Your task to perform on an android device: Open Google Maps and go to "Timeline" Image 0: 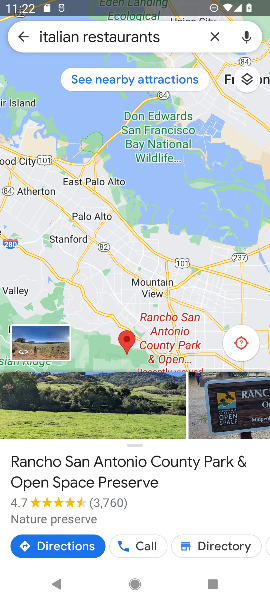
Step 0: press back button
Your task to perform on an android device: Open Google Maps and go to "Timeline" Image 1: 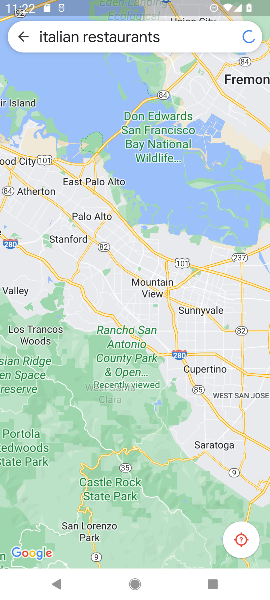
Step 1: press back button
Your task to perform on an android device: Open Google Maps and go to "Timeline" Image 2: 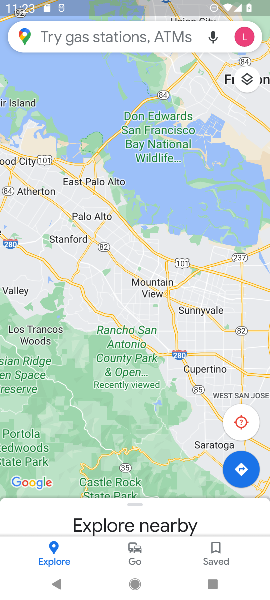
Step 2: click (36, 32)
Your task to perform on an android device: Open Google Maps and go to "Timeline" Image 3: 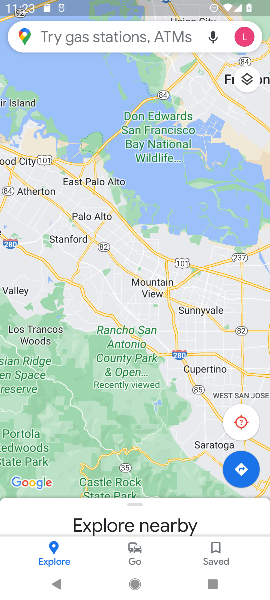
Step 3: click (33, 33)
Your task to perform on an android device: Open Google Maps and go to "Timeline" Image 4: 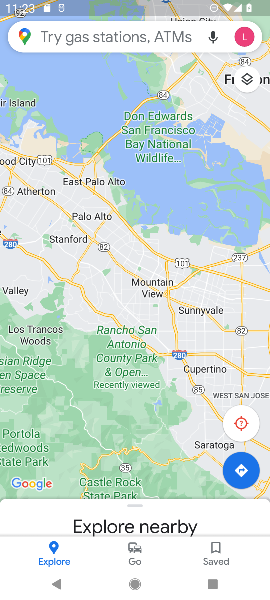
Step 4: click (33, 34)
Your task to perform on an android device: Open Google Maps and go to "Timeline" Image 5: 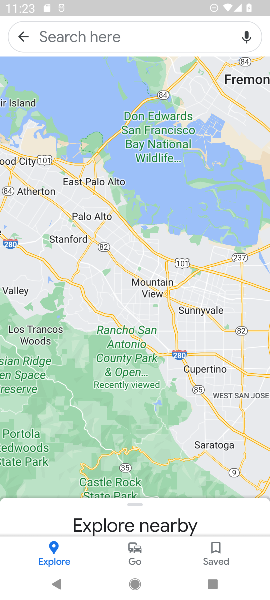
Step 5: click (20, 36)
Your task to perform on an android device: Open Google Maps and go to "Timeline" Image 6: 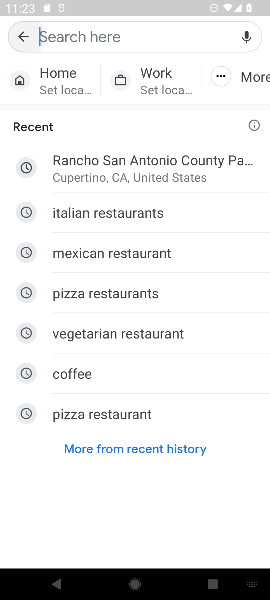
Step 6: drag from (20, 36) to (50, 256)
Your task to perform on an android device: Open Google Maps and go to "Timeline" Image 7: 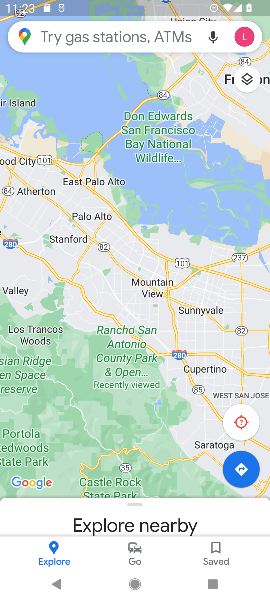
Step 7: click (20, 30)
Your task to perform on an android device: Open Google Maps and go to "Timeline" Image 8: 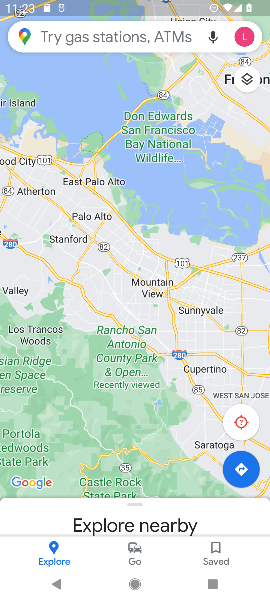
Step 8: click (20, 30)
Your task to perform on an android device: Open Google Maps and go to "Timeline" Image 9: 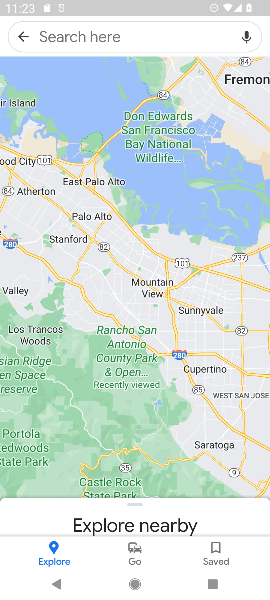
Step 9: click (20, 29)
Your task to perform on an android device: Open Google Maps and go to "Timeline" Image 10: 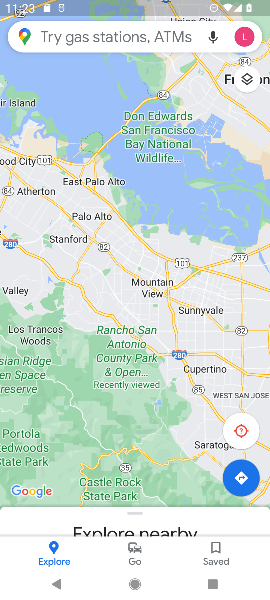
Step 10: click (20, 29)
Your task to perform on an android device: Open Google Maps and go to "Timeline" Image 11: 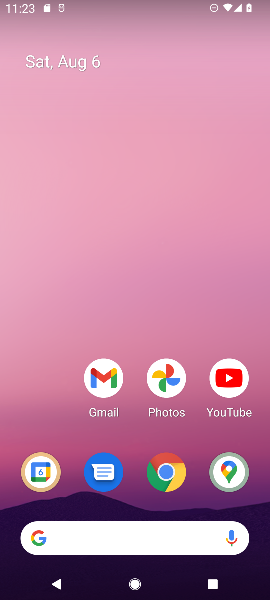
Step 11: click (240, 37)
Your task to perform on an android device: Open Google Maps and go to "Timeline" Image 12: 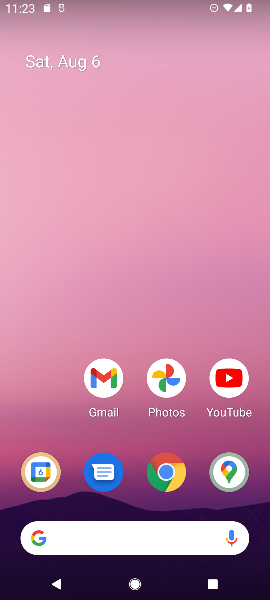
Step 12: drag from (144, 544) to (143, 33)
Your task to perform on an android device: Open Google Maps and go to "Timeline" Image 13: 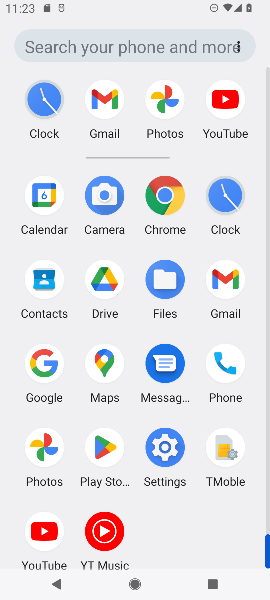
Step 13: click (95, 367)
Your task to perform on an android device: Open Google Maps and go to "Timeline" Image 14: 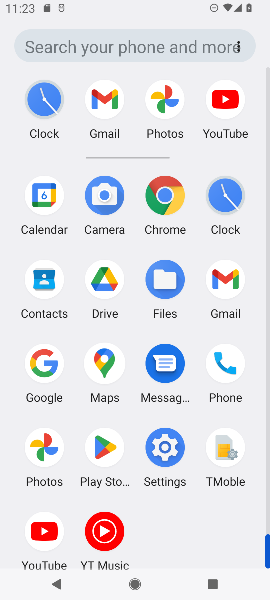
Step 14: click (96, 361)
Your task to perform on an android device: Open Google Maps and go to "Timeline" Image 15: 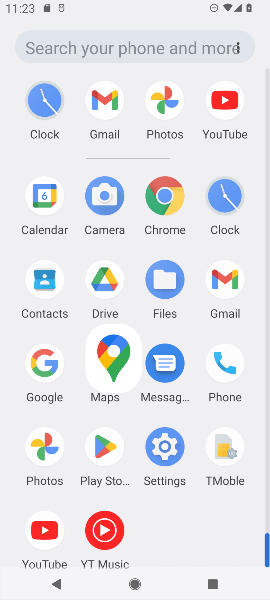
Step 15: click (96, 361)
Your task to perform on an android device: Open Google Maps and go to "Timeline" Image 16: 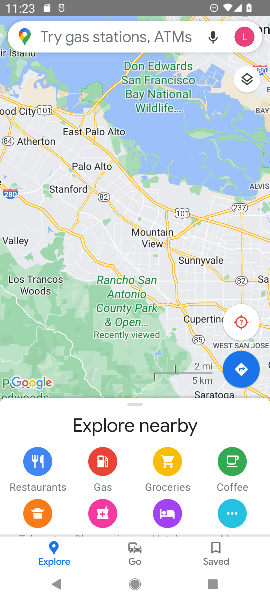
Step 16: click (231, 38)
Your task to perform on an android device: Open Google Maps and go to "Timeline" Image 17: 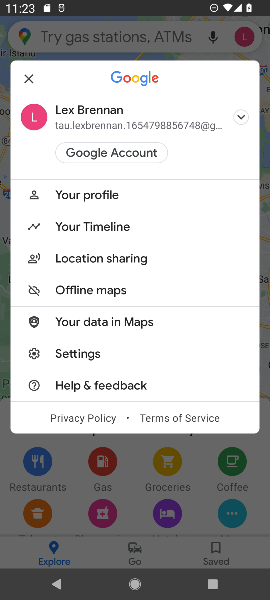
Step 17: click (106, 231)
Your task to perform on an android device: Open Google Maps and go to "Timeline" Image 18: 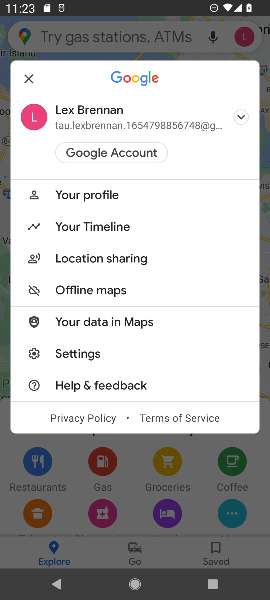
Step 18: click (106, 231)
Your task to perform on an android device: Open Google Maps and go to "Timeline" Image 19: 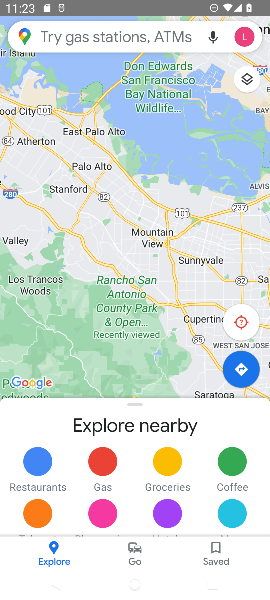
Step 19: click (106, 231)
Your task to perform on an android device: Open Google Maps and go to "Timeline" Image 20: 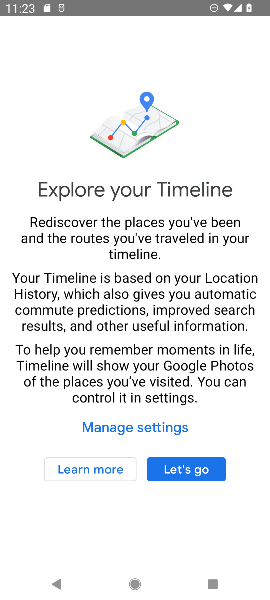
Step 20: task complete